Your task to perform on an android device: Go to settings Image 0: 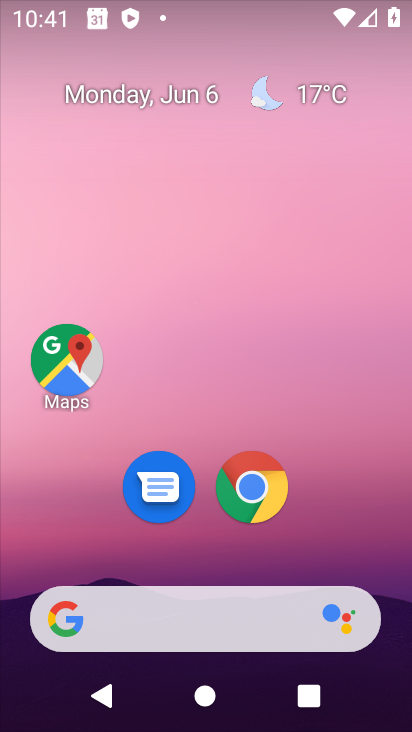
Step 0: drag from (166, 656) to (183, 51)
Your task to perform on an android device: Go to settings Image 1: 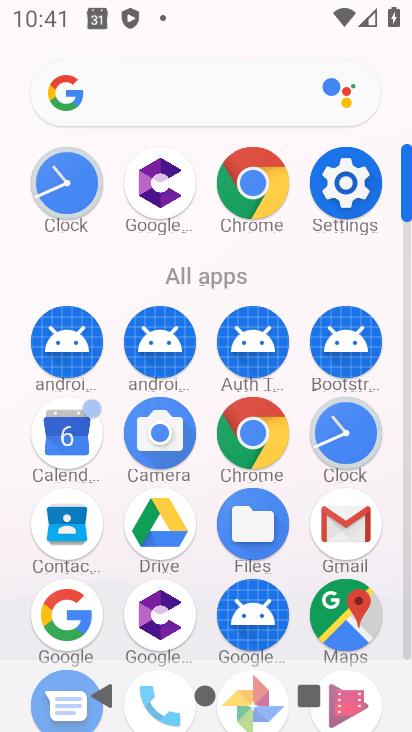
Step 1: click (336, 185)
Your task to perform on an android device: Go to settings Image 2: 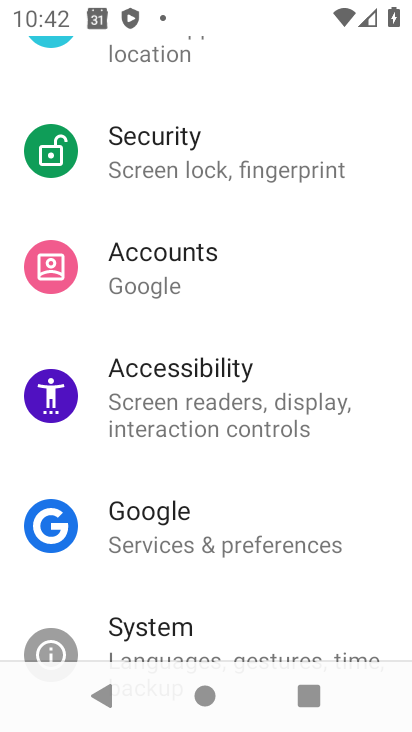
Step 2: task complete